Your task to perform on an android device: turn on the 12-hour format for clock Image 0: 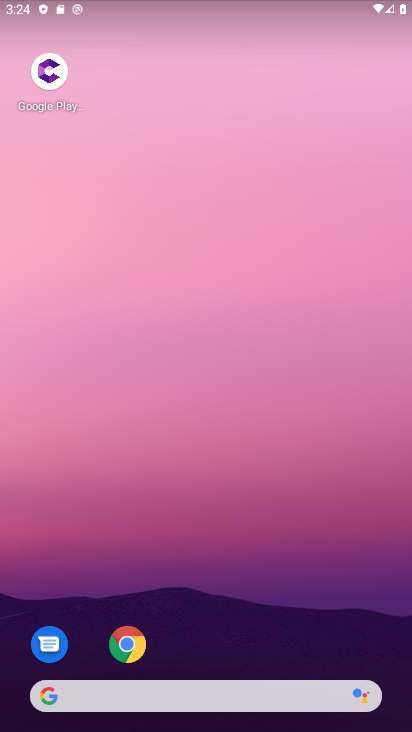
Step 0: drag from (236, 634) to (339, 291)
Your task to perform on an android device: turn on the 12-hour format for clock Image 1: 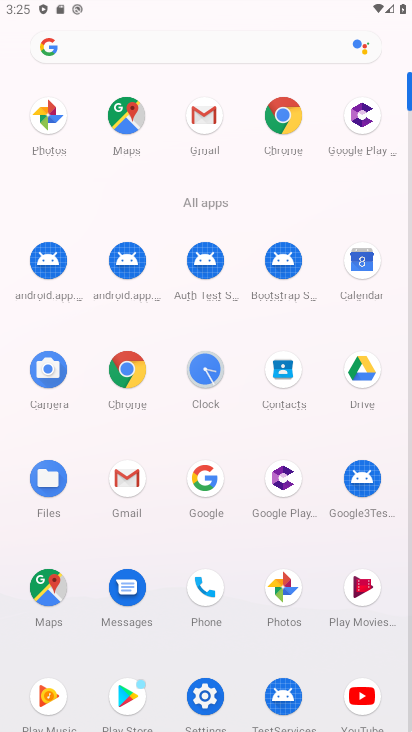
Step 1: click (207, 365)
Your task to perform on an android device: turn on the 12-hour format for clock Image 2: 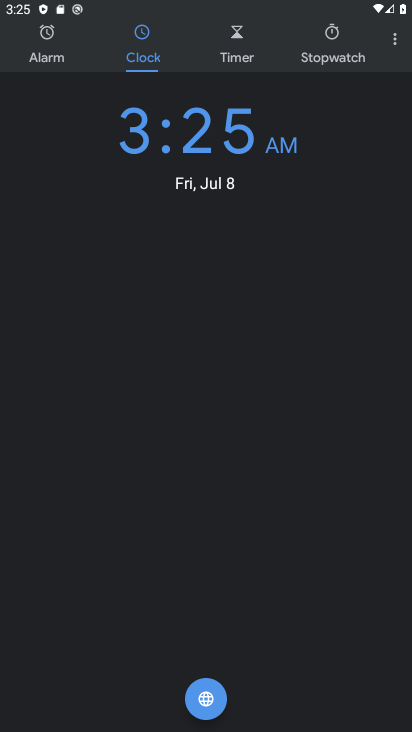
Step 2: click (401, 32)
Your task to perform on an android device: turn on the 12-hour format for clock Image 3: 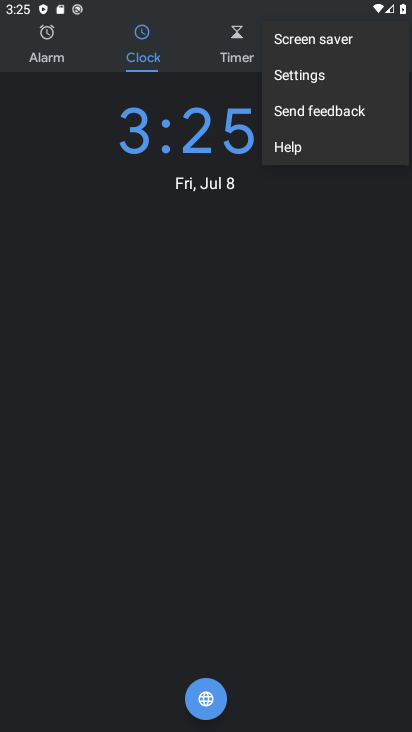
Step 3: click (378, 80)
Your task to perform on an android device: turn on the 12-hour format for clock Image 4: 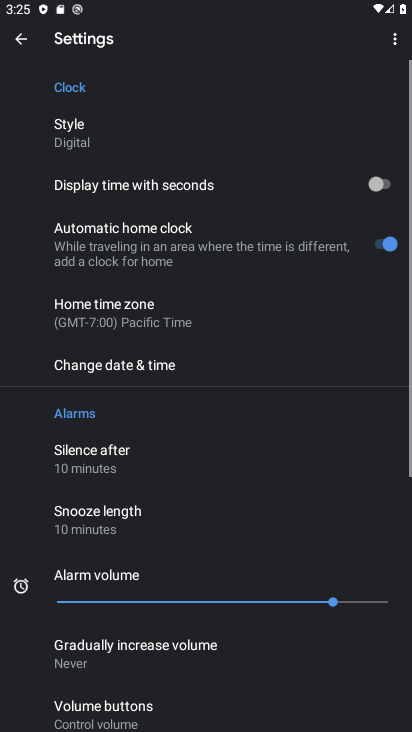
Step 4: drag from (180, 427) to (291, 6)
Your task to perform on an android device: turn on the 12-hour format for clock Image 5: 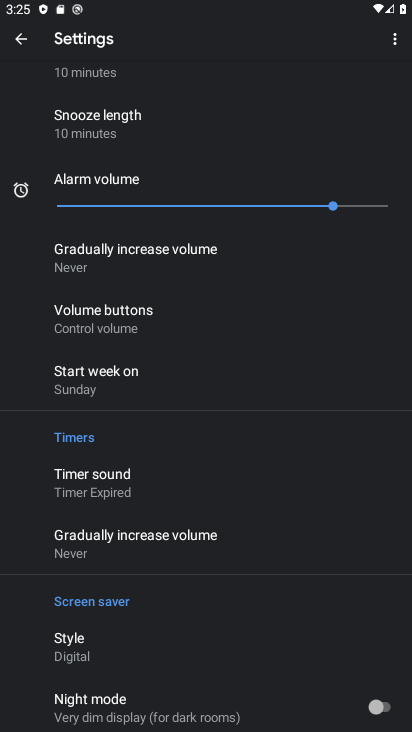
Step 5: drag from (160, 687) to (284, 640)
Your task to perform on an android device: turn on the 12-hour format for clock Image 6: 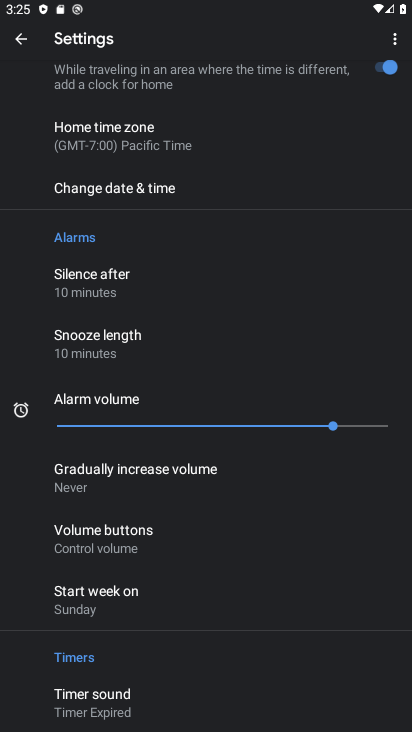
Step 6: click (67, 185)
Your task to perform on an android device: turn on the 12-hour format for clock Image 7: 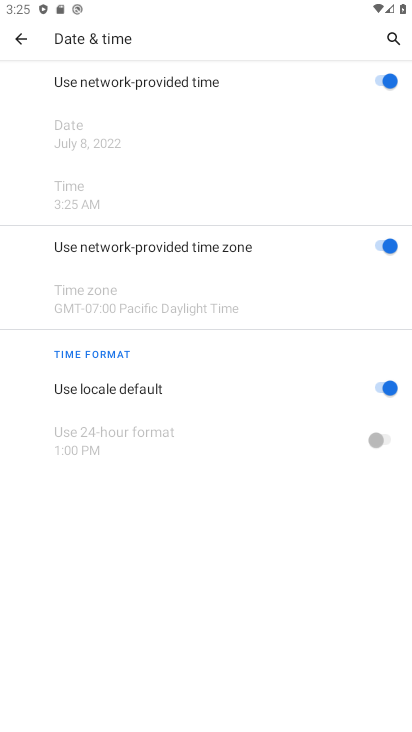
Step 7: task complete